Your task to perform on an android device: turn off notifications in google photos Image 0: 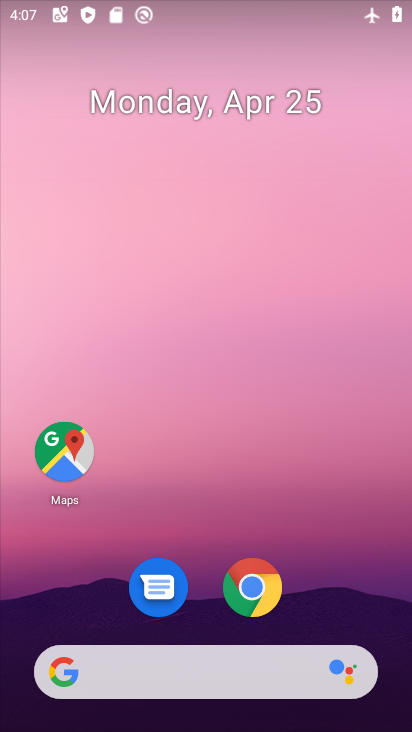
Step 0: drag from (345, 600) to (365, 56)
Your task to perform on an android device: turn off notifications in google photos Image 1: 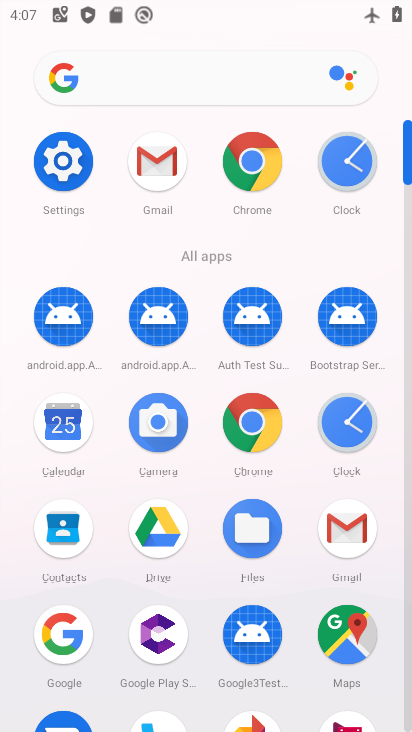
Step 1: drag from (408, 581) to (411, 543)
Your task to perform on an android device: turn off notifications in google photos Image 2: 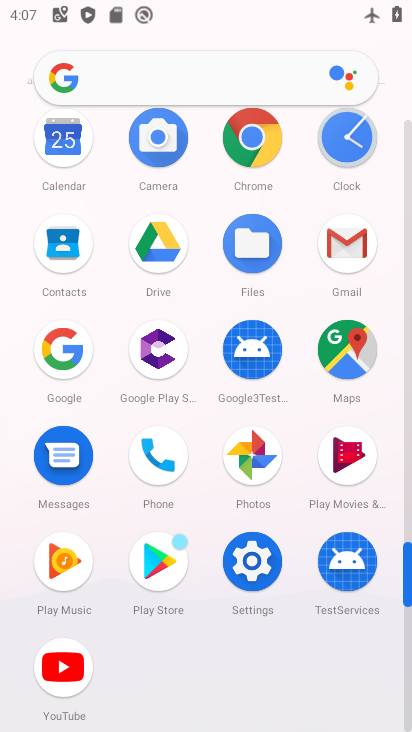
Step 2: click (258, 464)
Your task to perform on an android device: turn off notifications in google photos Image 3: 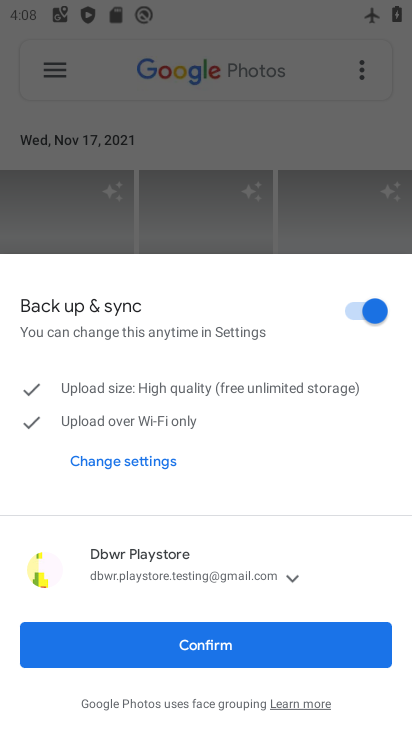
Step 3: drag from (260, 569) to (244, 271)
Your task to perform on an android device: turn off notifications in google photos Image 4: 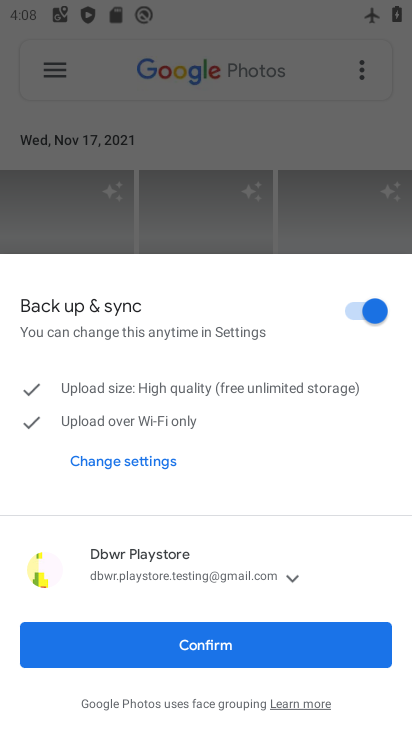
Step 4: click (241, 654)
Your task to perform on an android device: turn off notifications in google photos Image 5: 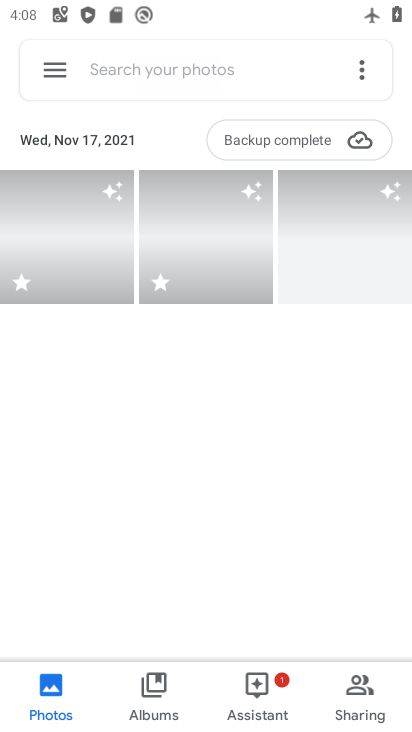
Step 5: click (39, 81)
Your task to perform on an android device: turn off notifications in google photos Image 6: 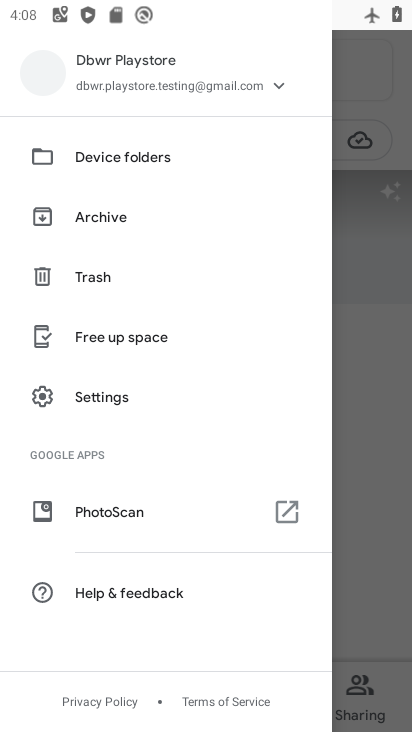
Step 6: click (109, 394)
Your task to perform on an android device: turn off notifications in google photos Image 7: 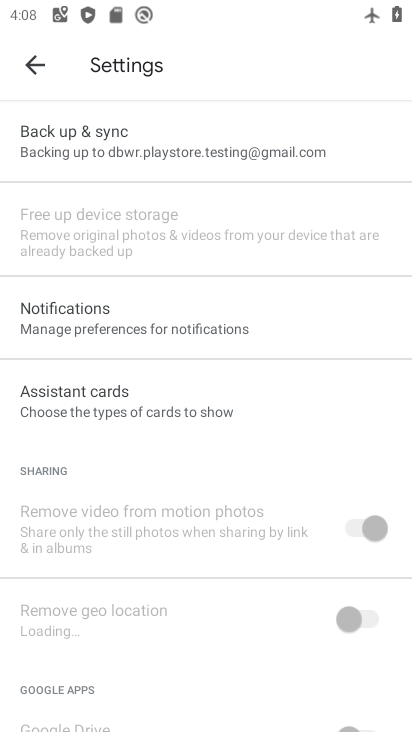
Step 7: click (139, 326)
Your task to perform on an android device: turn off notifications in google photos Image 8: 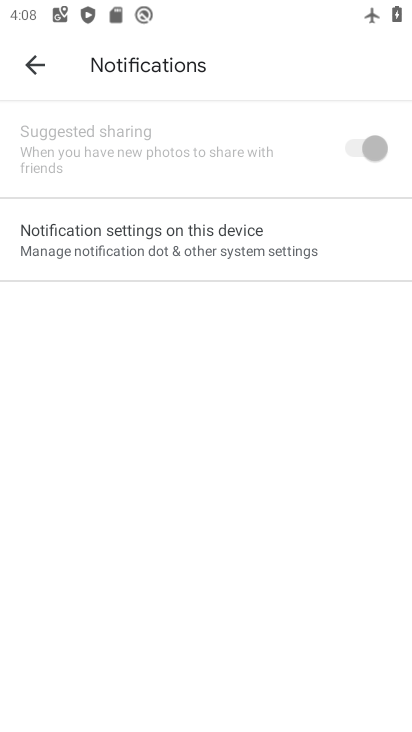
Step 8: click (286, 242)
Your task to perform on an android device: turn off notifications in google photos Image 9: 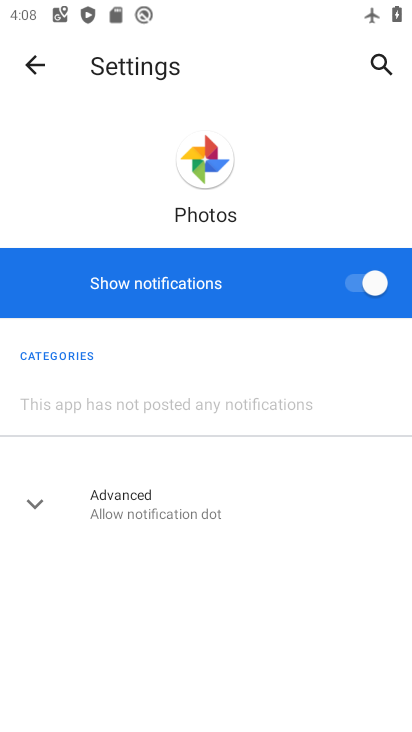
Step 9: click (360, 282)
Your task to perform on an android device: turn off notifications in google photos Image 10: 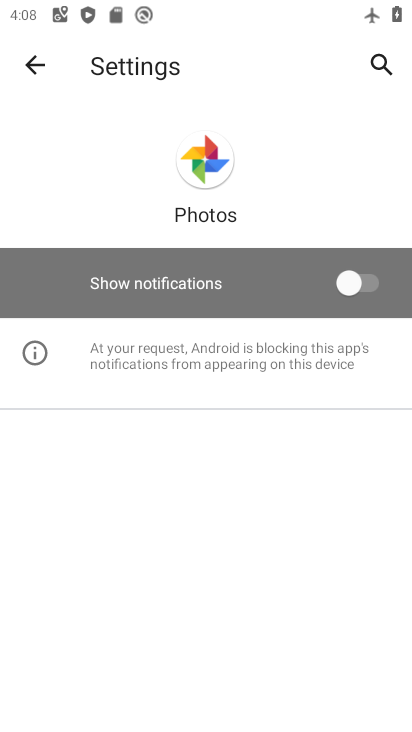
Step 10: task complete